Your task to perform on an android device: Open sound settings Image 0: 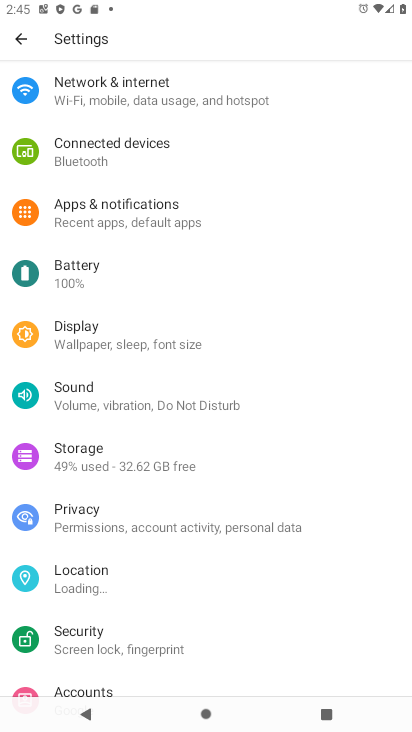
Step 0: press home button
Your task to perform on an android device: Open sound settings Image 1: 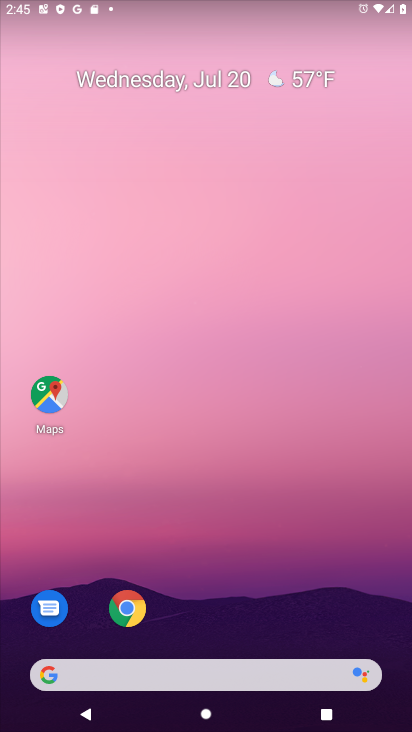
Step 1: click (206, 622)
Your task to perform on an android device: Open sound settings Image 2: 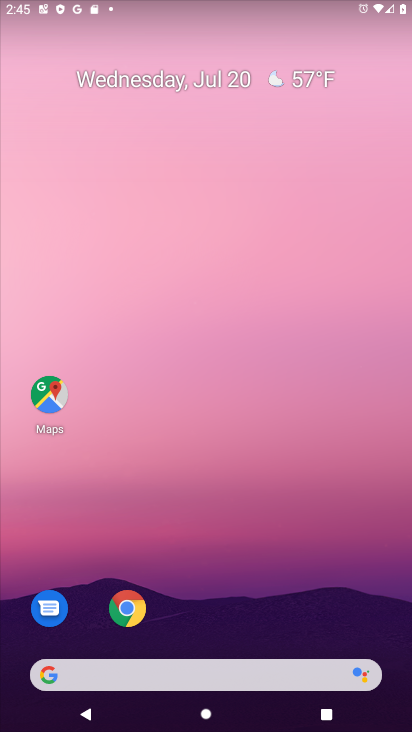
Step 2: drag from (173, 618) to (172, 151)
Your task to perform on an android device: Open sound settings Image 3: 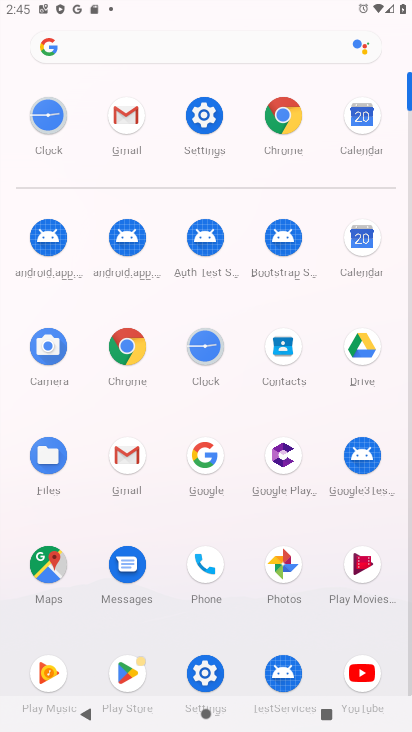
Step 3: click (203, 106)
Your task to perform on an android device: Open sound settings Image 4: 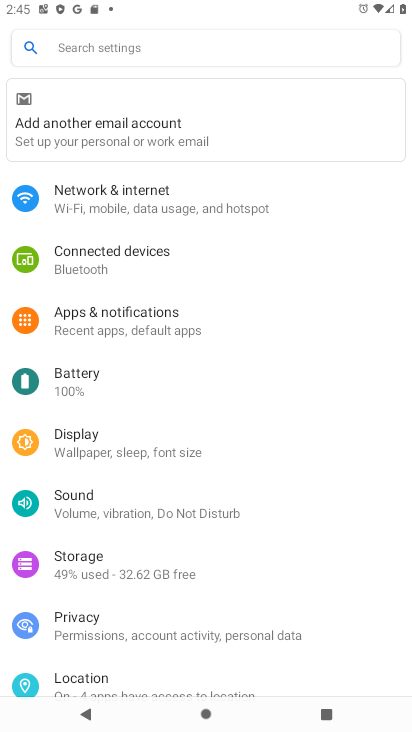
Step 4: click (89, 499)
Your task to perform on an android device: Open sound settings Image 5: 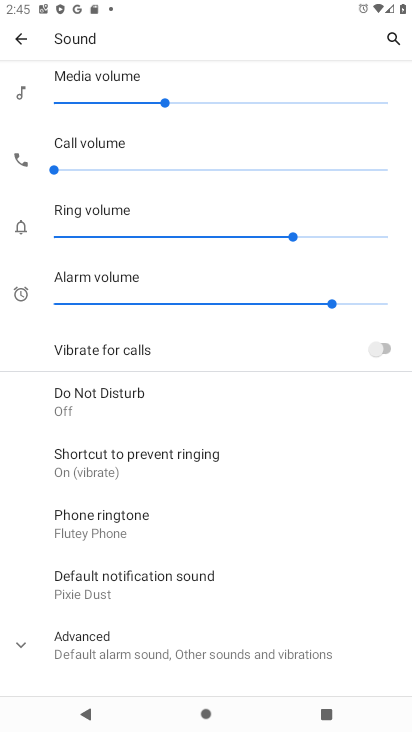
Step 5: task complete